Your task to perform on an android device: turn off translation in the chrome app Image 0: 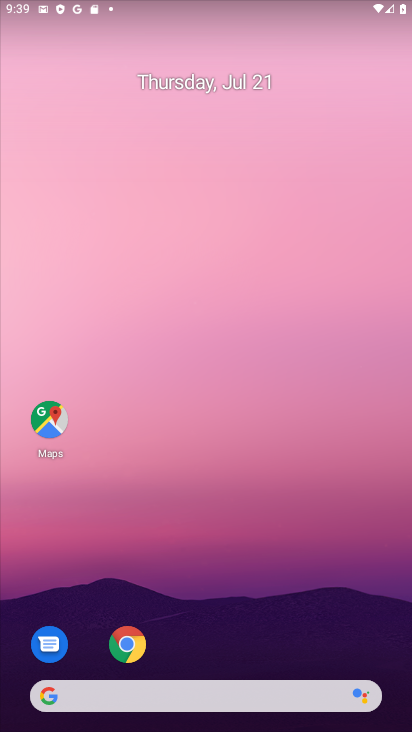
Step 0: click (118, 641)
Your task to perform on an android device: turn off translation in the chrome app Image 1: 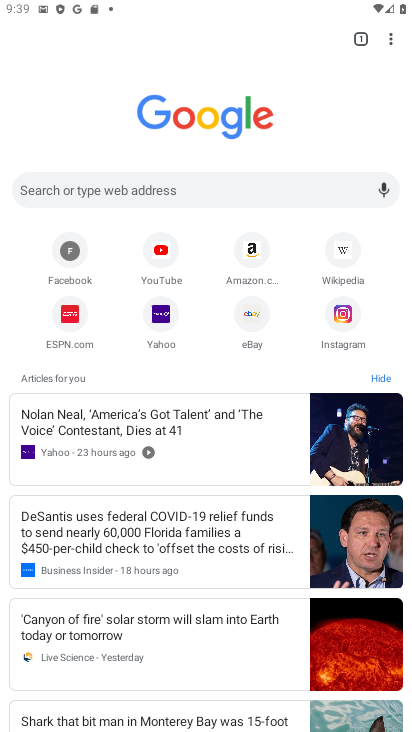
Step 1: click (382, 36)
Your task to perform on an android device: turn off translation in the chrome app Image 2: 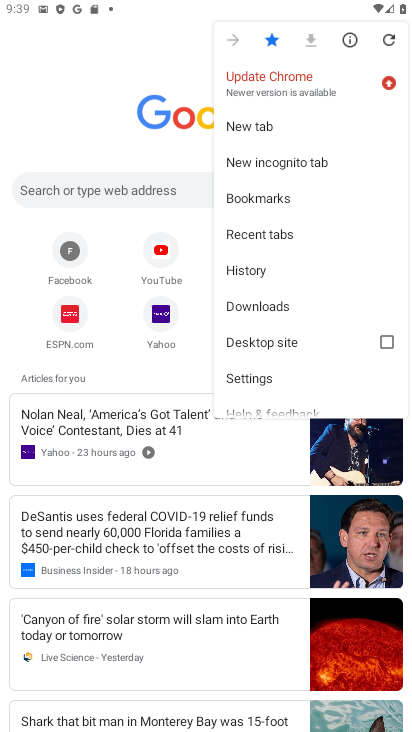
Step 2: click (278, 380)
Your task to perform on an android device: turn off translation in the chrome app Image 3: 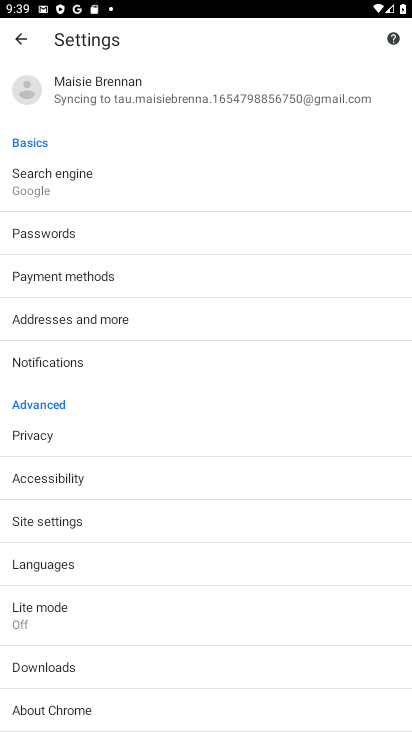
Step 3: click (91, 571)
Your task to perform on an android device: turn off translation in the chrome app Image 4: 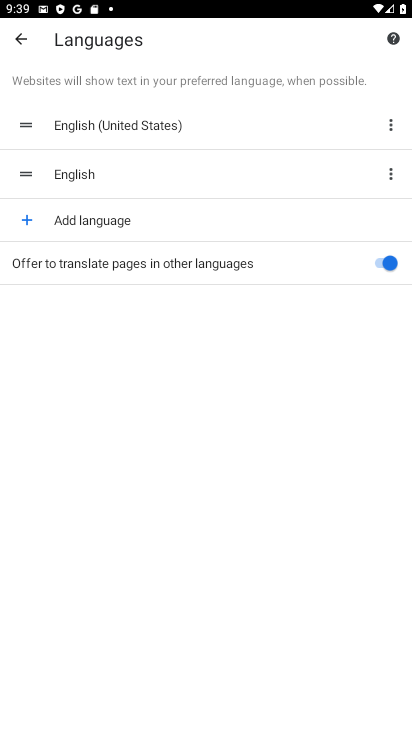
Step 4: click (378, 258)
Your task to perform on an android device: turn off translation in the chrome app Image 5: 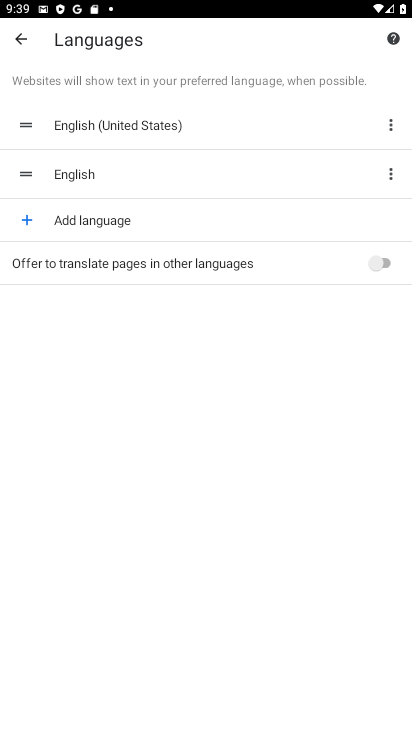
Step 5: task complete